Your task to perform on an android device: Open Yahoo.com Image 0: 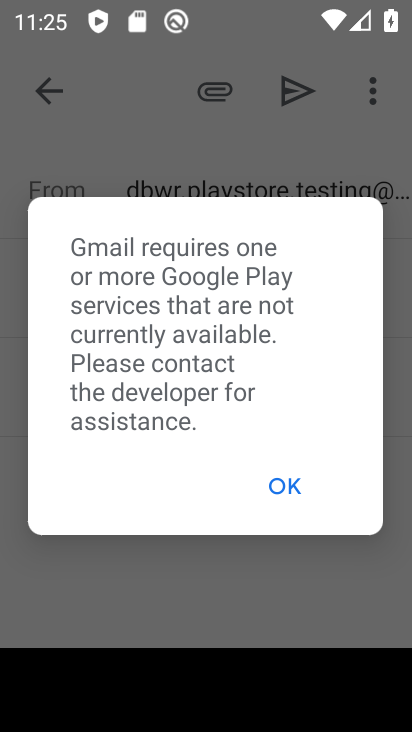
Step 0: press back button
Your task to perform on an android device: Open Yahoo.com Image 1: 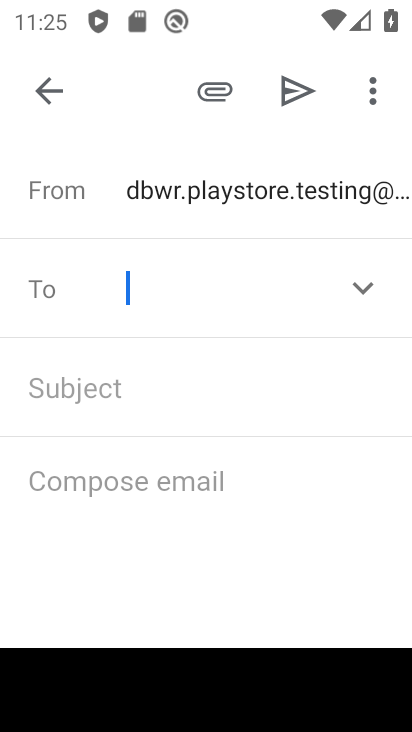
Step 1: press home button
Your task to perform on an android device: Open Yahoo.com Image 2: 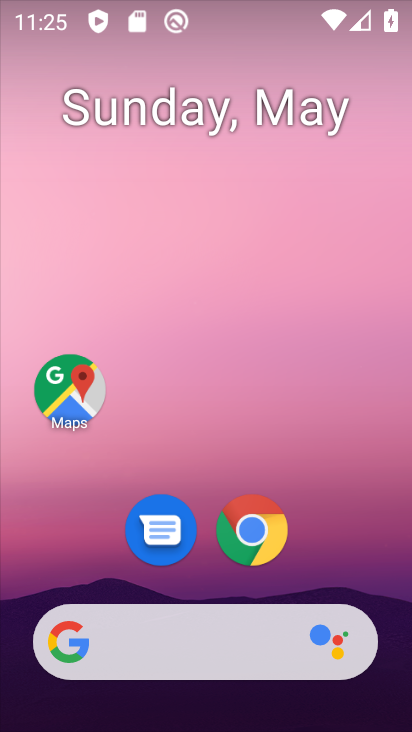
Step 2: drag from (233, 472) to (239, 54)
Your task to perform on an android device: Open Yahoo.com Image 3: 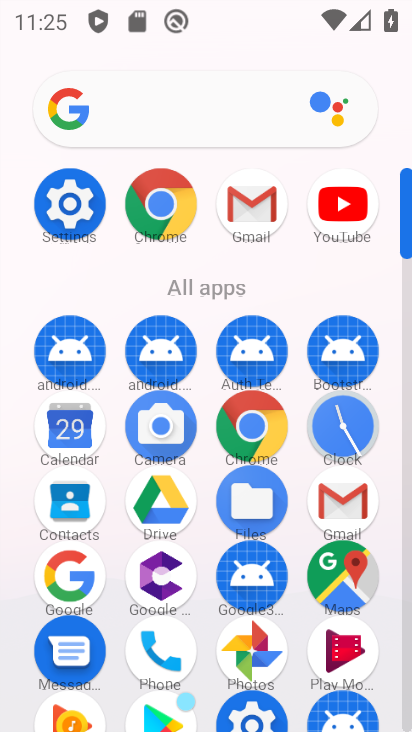
Step 3: click (154, 201)
Your task to perform on an android device: Open Yahoo.com Image 4: 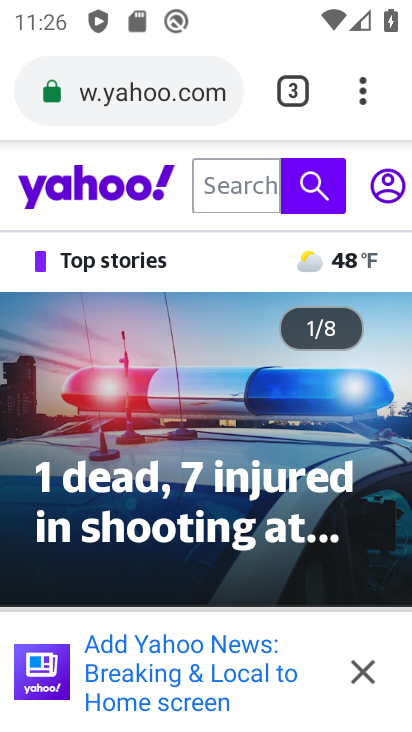
Step 4: task complete